Your task to perform on an android device: Go to calendar. Show me events next week Image 0: 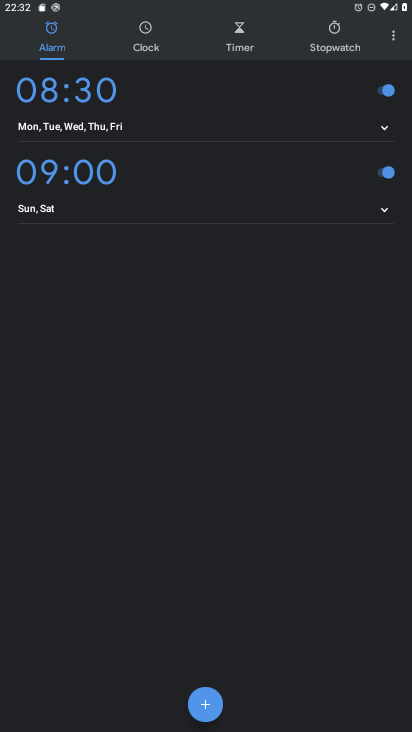
Step 0: press home button
Your task to perform on an android device: Go to calendar. Show me events next week Image 1: 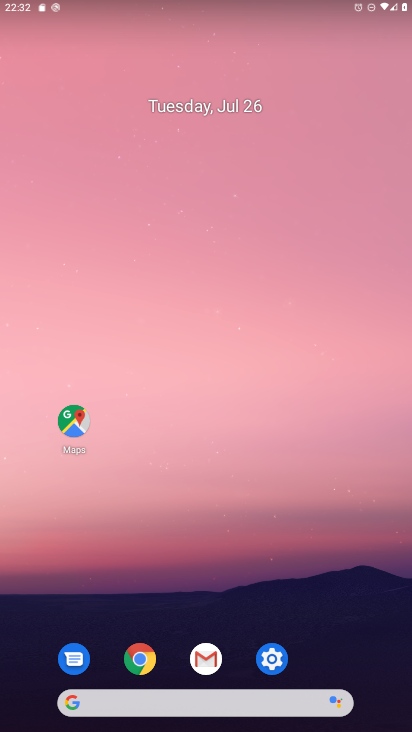
Step 1: drag from (234, 721) to (288, 247)
Your task to perform on an android device: Go to calendar. Show me events next week Image 2: 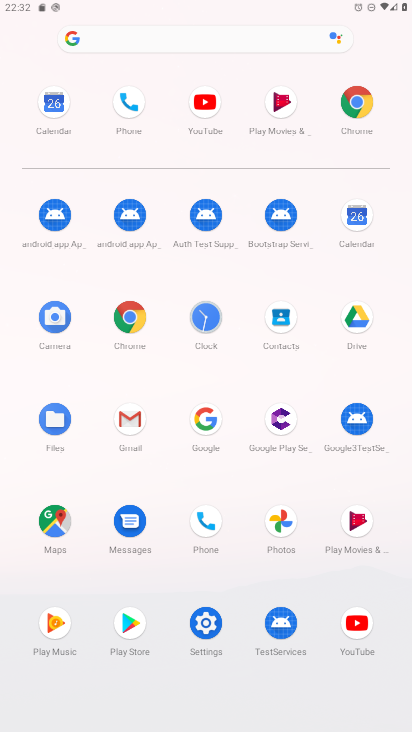
Step 2: click (369, 224)
Your task to perform on an android device: Go to calendar. Show me events next week Image 3: 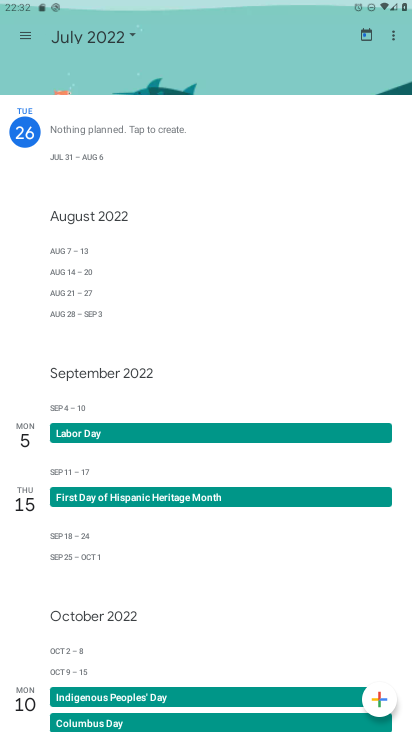
Step 3: click (32, 35)
Your task to perform on an android device: Go to calendar. Show me events next week Image 4: 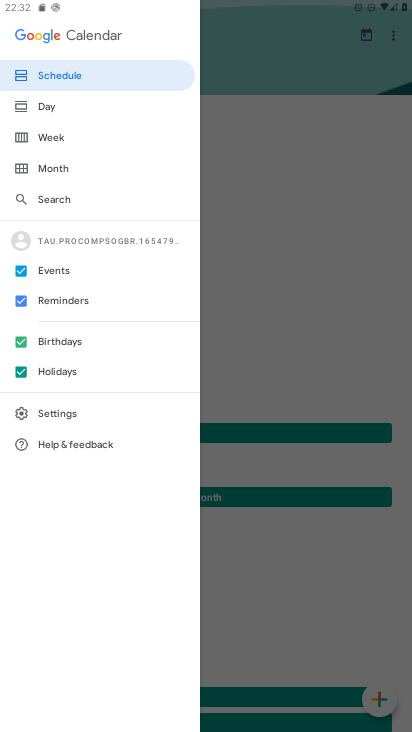
Step 4: click (63, 170)
Your task to perform on an android device: Go to calendar. Show me events next week Image 5: 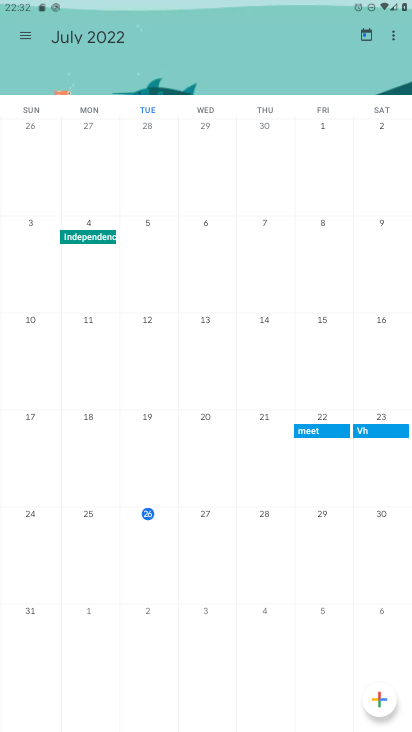
Step 5: click (97, 613)
Your task to perform on an android device: Go to calendar. Show me events next week Image 6: 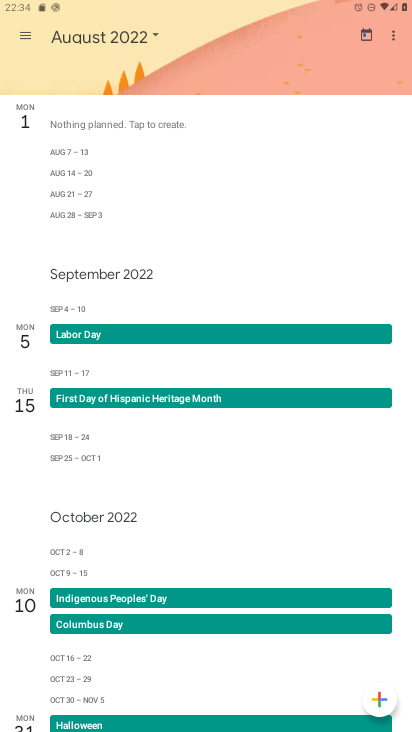
Step 6: task complete